Your task to perform on an android device: change alarm snooze length Image 0: 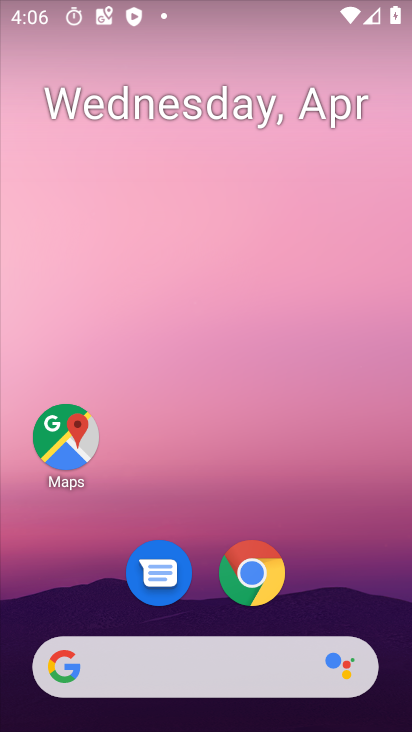
Step 0: drag from (371, 523) to (371, 137)
Your task to perform on an android device: change alarm snooze length Image 1: 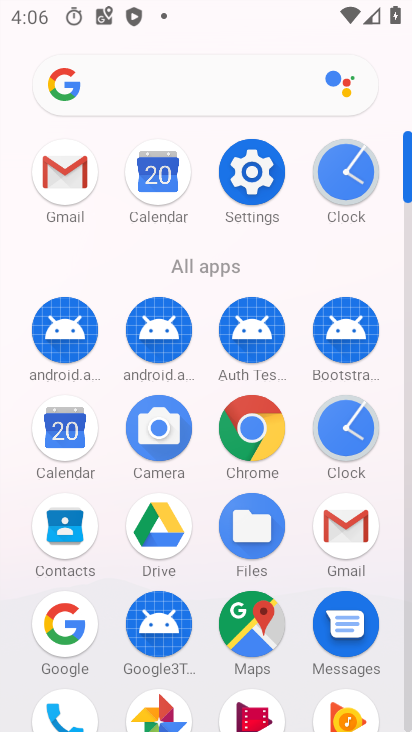
Step 1: click (337, 179)
Your task to perform on an android device: change alarm snooze length Image 2: 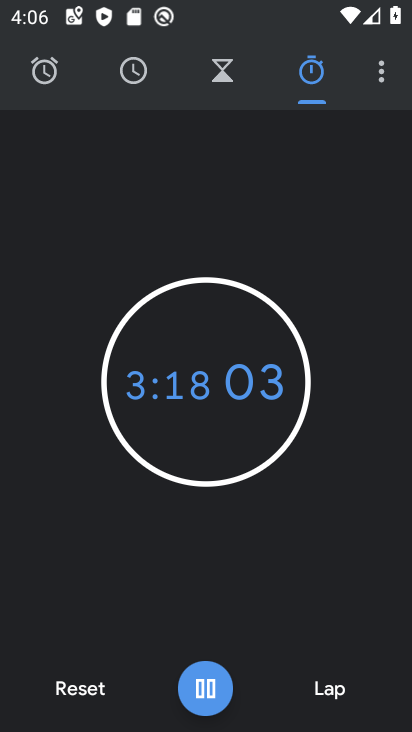
Step 2: click (46, 75)
Your task to perform on an android device: change alarm snooze length Image 3: 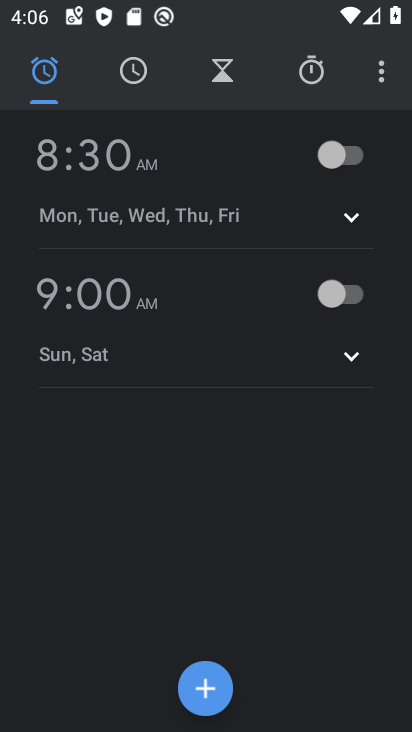
Step 3: click (383, 63)
Your task to perform on an android device: change alarm snooze length Image 4: 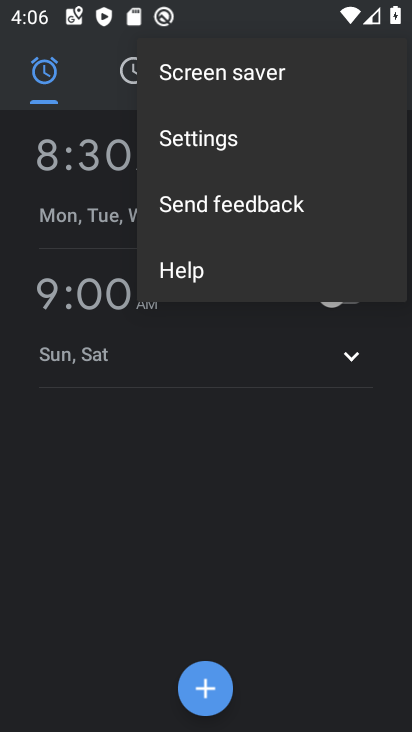
Step 4: click (199, 126)
Your task to perform on an android device: change alarm snooze length Image 5: 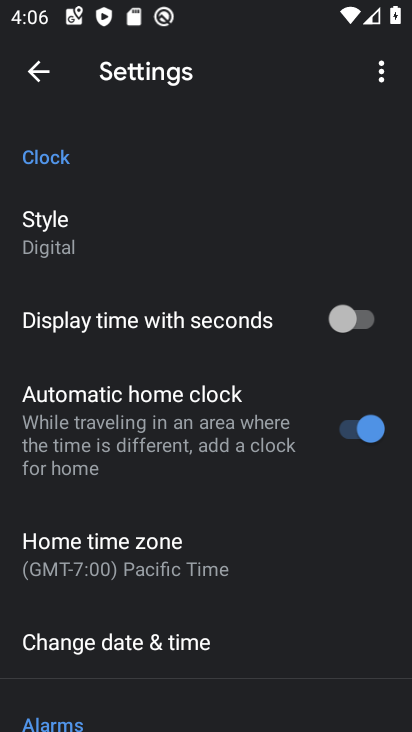
Step 5: drag from (308, 507) to (296, 111)
Your task to perform on an android device: change alarm snooze length Image 6: 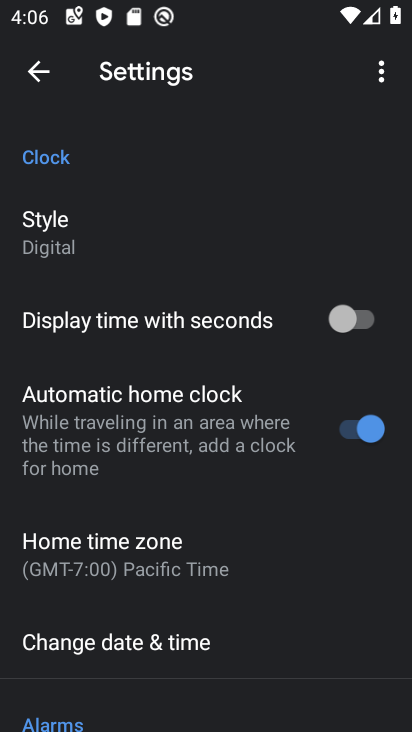
Step 6: drag from (269, 693) to (265, 231)
Your task to perform on an android device: change alarm snooze length Image 7: 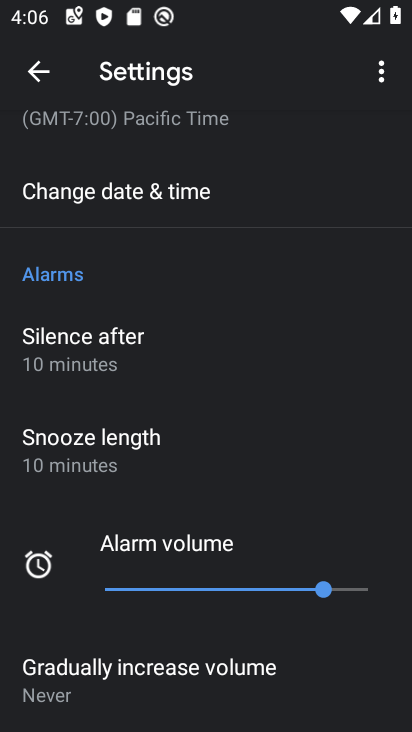
Step 7: click (63, 441)
Your task to perform on an android device: change alarm snooze length Image 8: 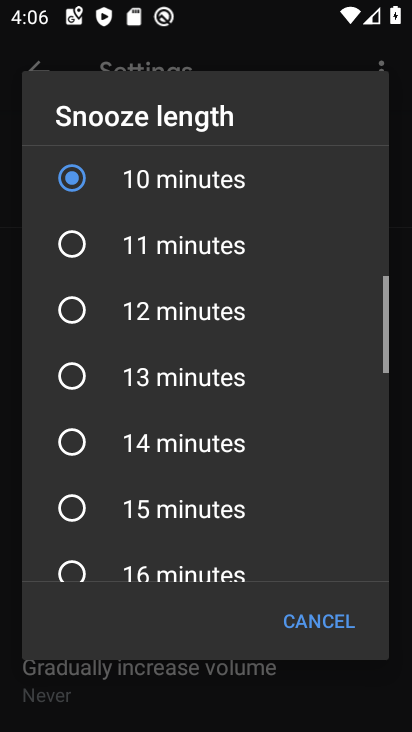
Step 8: click (68, 308)
Your task to perform on an android device: change alarm snooze length Image 9: 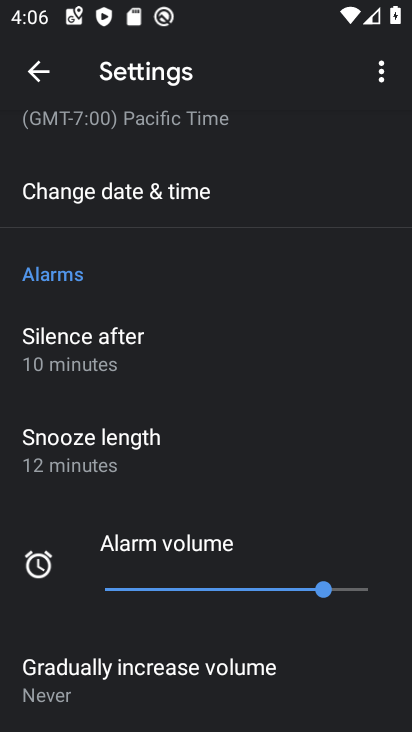
Step 9: task complete